Your task to perform on an android device: check data usage Image 0: 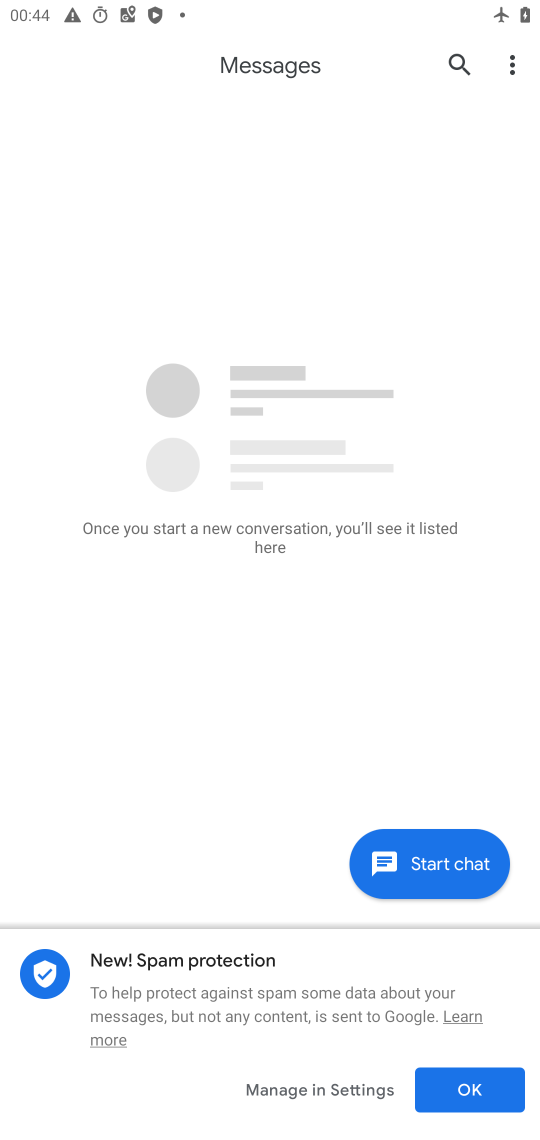
Step 0: press home button
Your task to perform on an android device: check data usage Image 1: 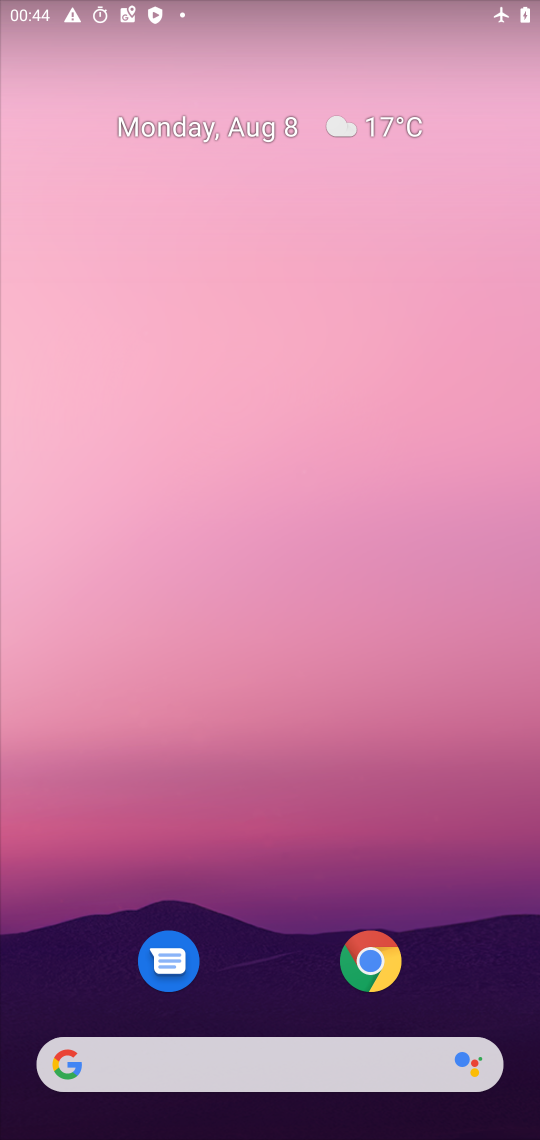
Step 1: drag from (331, 1032) to (416, 117)
Your task to perform on an android device: check data usage Image 2: 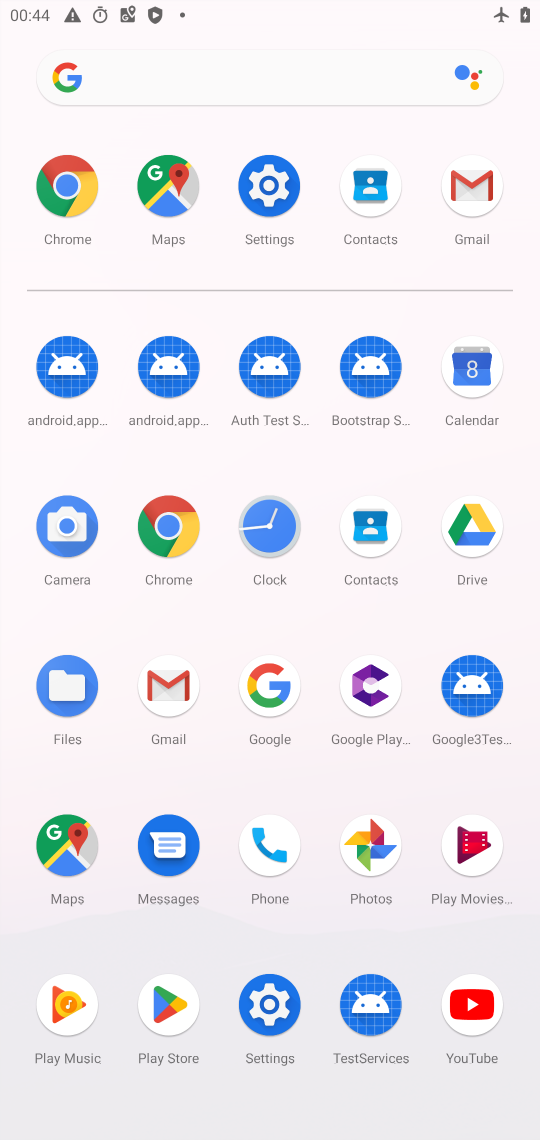
Step 2: click (289, 179)
Your task to perform on an android device: check data usage Image 3: 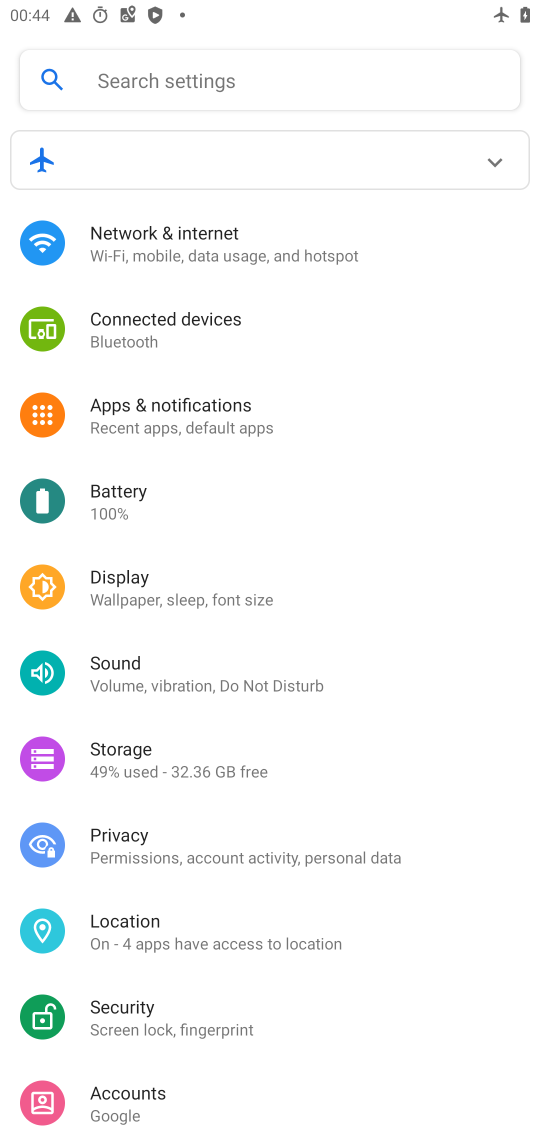
Step 3: click (243, 229)
Your task to perform on an android device: check data usage Image 4: 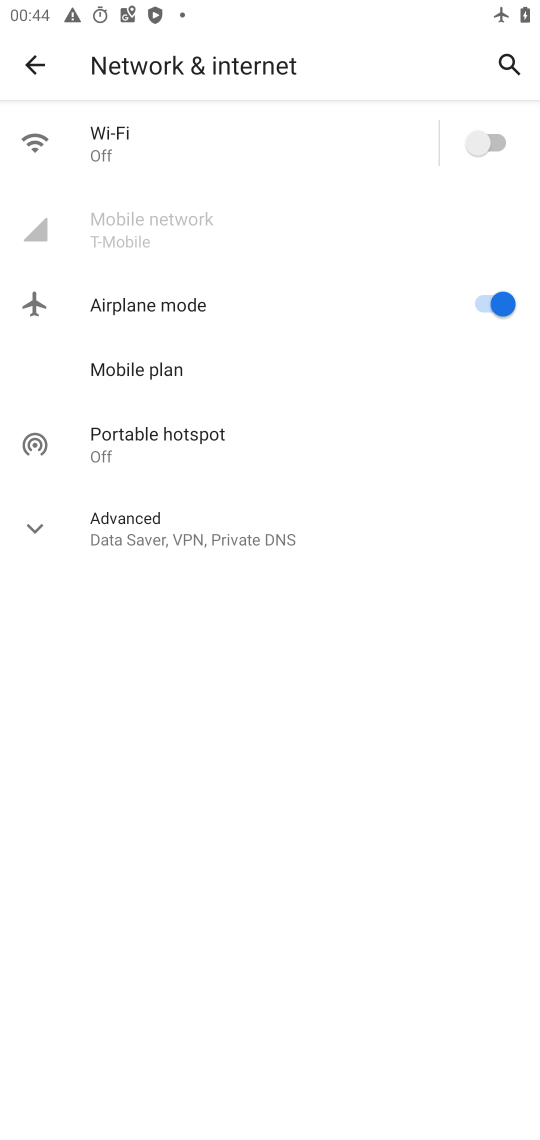
Step 4: task complete